Your task to perform on an android device: manage bookmarks in the chrome app Image 0: 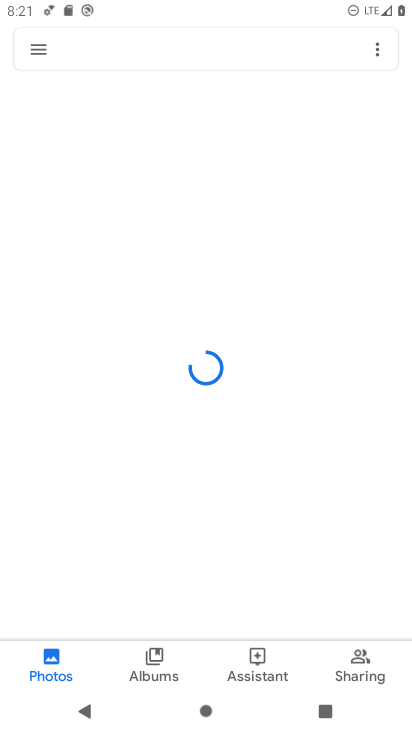
Step 0: press home button
Your task to perform on an android device: manage bookmarks in the chrome app Image 1: 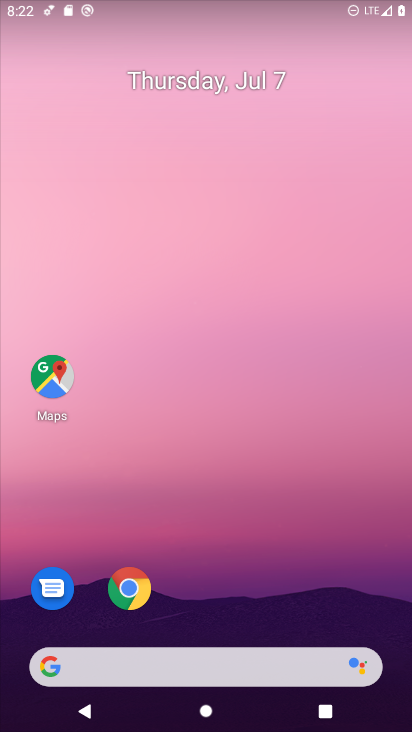
Step 1: drag from (284, 586) to (217, 153)
Your task to perform on an android device: manage bookmarks in the chrome app Image 2: 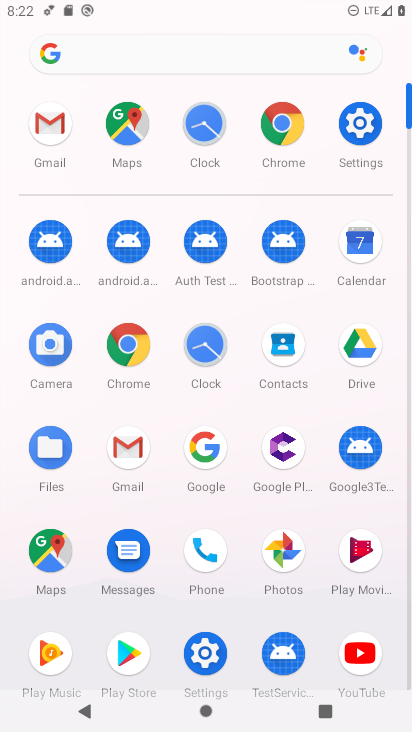
Step 2: click (276, 124)
Your task to perform on an android device: manage bookmarks in the chrome app Image 3: 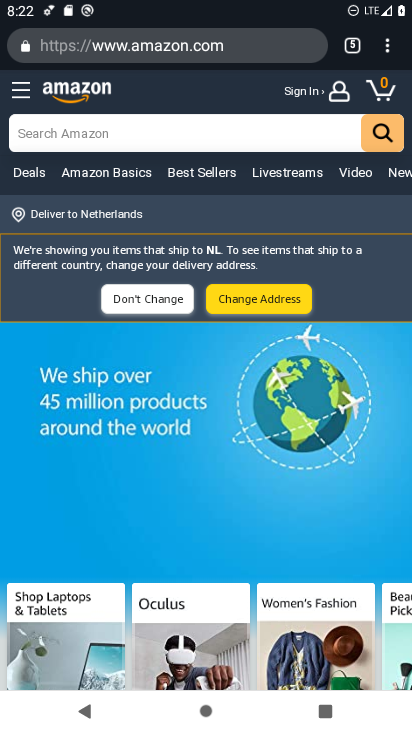
Step 3: click (380, 39)
Your task to perform on an android device: manage bookmarks in the chrome app Image 4: 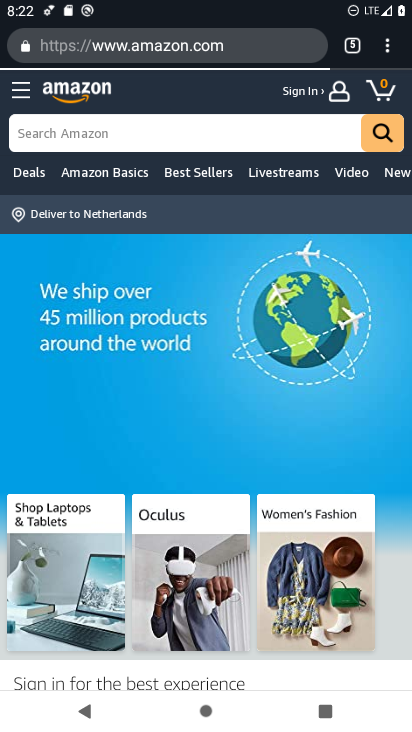
Step 4: click (387, 50)
Your task to perform on an android device: manage bookmarks in the chrome app Image 5: 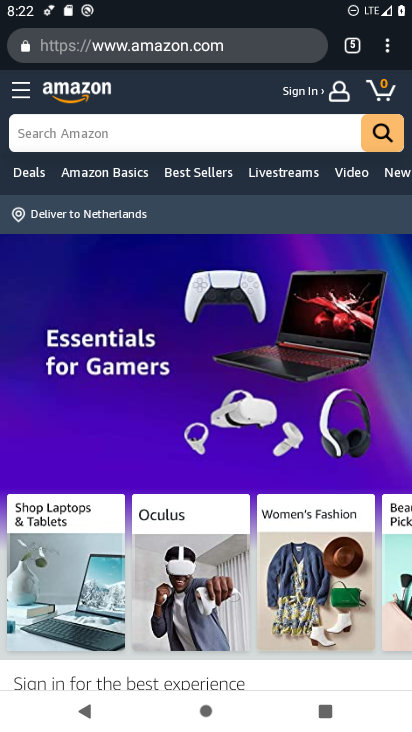
Step 5: click (394, 49)
Your task to perform on an android device: manage bookmarks in the chrome app Image 6: 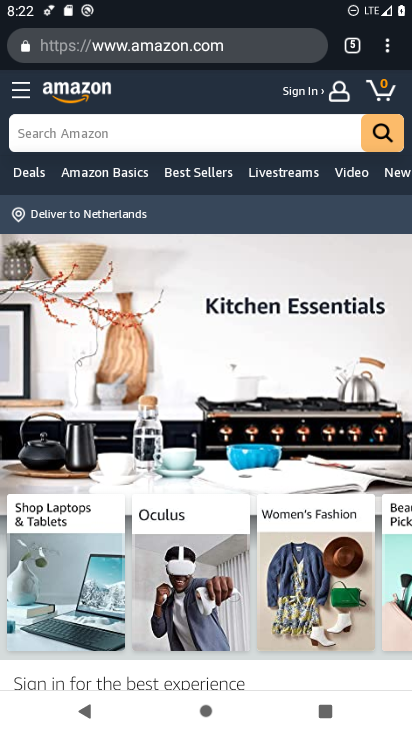
Step 6: click (394, 49)
Your task to perform on an android device: manage bookmarks in the chrome app Image 7: 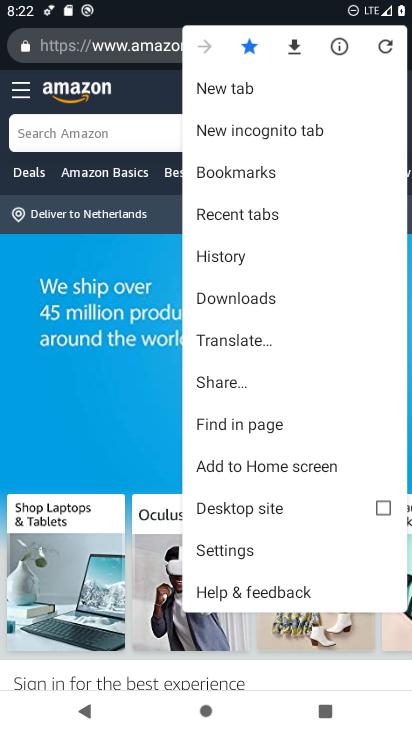
Step 7: click (253, 173)
Your task to perform on an android device: manage bookmarks in the chrome app Image 8: 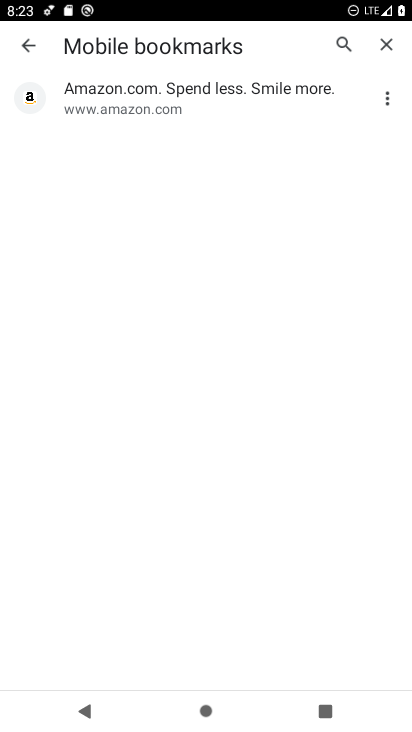
Step 8: click (174, 100)
Your task to perform on an android device: manage bookmarks in the chrome app Image 9: 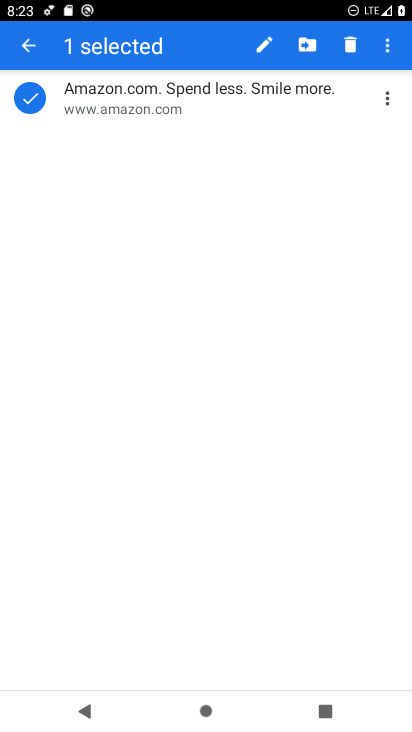
Step 9: click (314, 46)
Your task to perform on an android device: manage bookmarks in the chrome app Image 10: 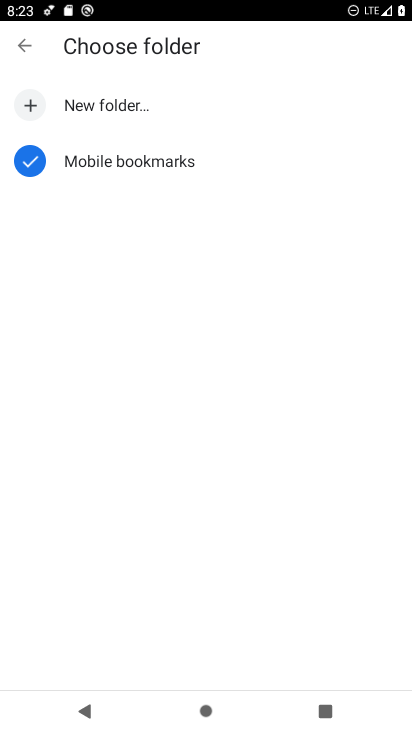
Step 10: click (129, 158)
Your task to perform on an android device: manage bookmarks in the chrome app Image 11: 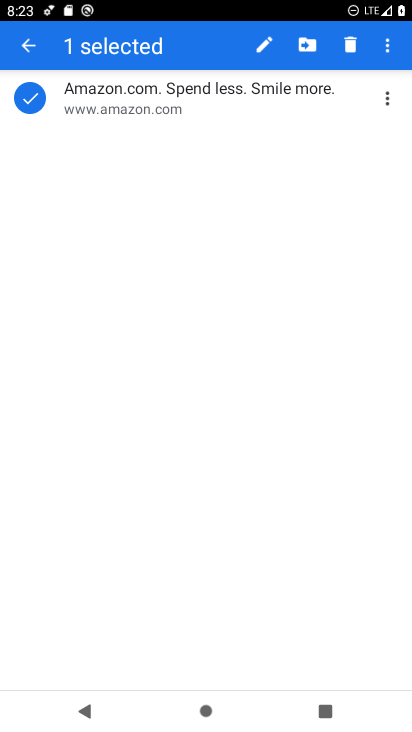
Step 11: task complete